Your task to perform on an android device: Search for vegetarian restaurants on Maps Image 0: 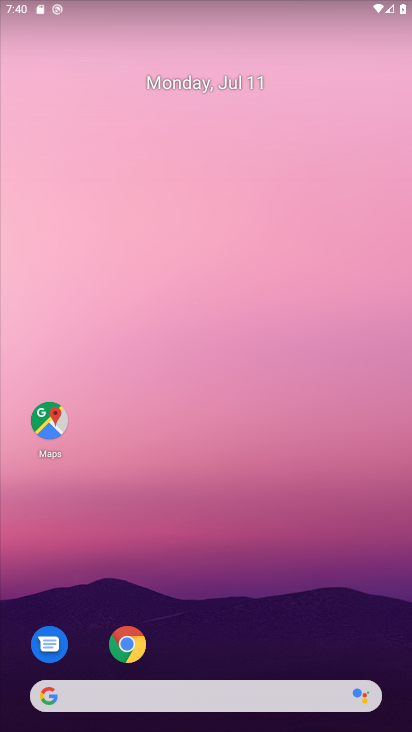
Step 0: drag from (250, 656) to (278, 262)
Your task to perform on an android device: Search for vegetarian restaurants on Maps Image 1: 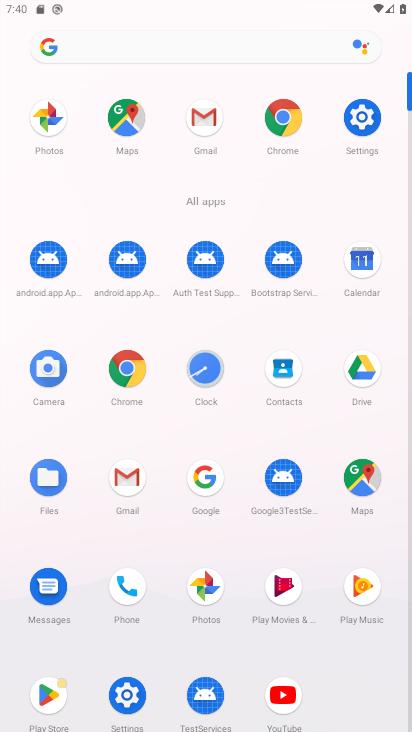
Step 1: click (120, 106)
Your task to perform on an android device: Search for vegetarian restaurants on Maps Image 2: 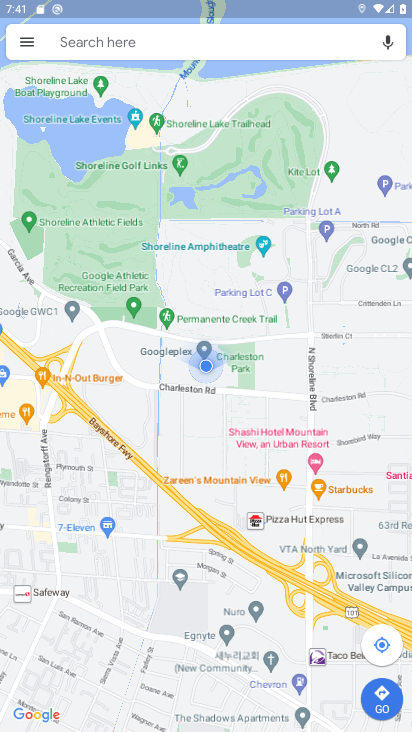
Step 2: click (143, 34)
Your task to perform on an android device: Search for vegetarian restaurants on Maps Image 3: 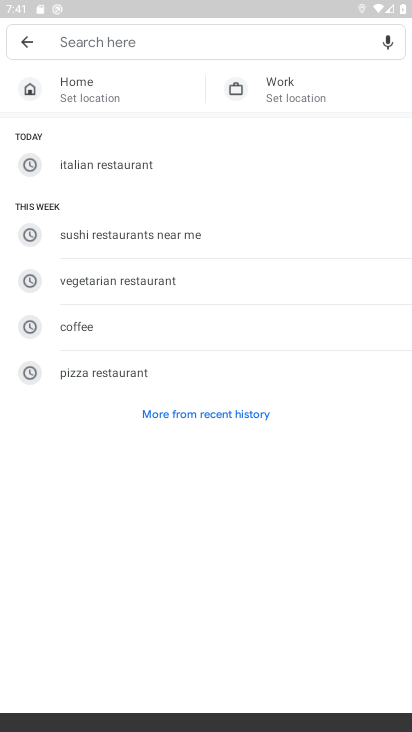
Step 3: type "vegetarian restaurants  "
Your task to perform on an android device: Search for vegetarian restaurants on Maps Image 4: 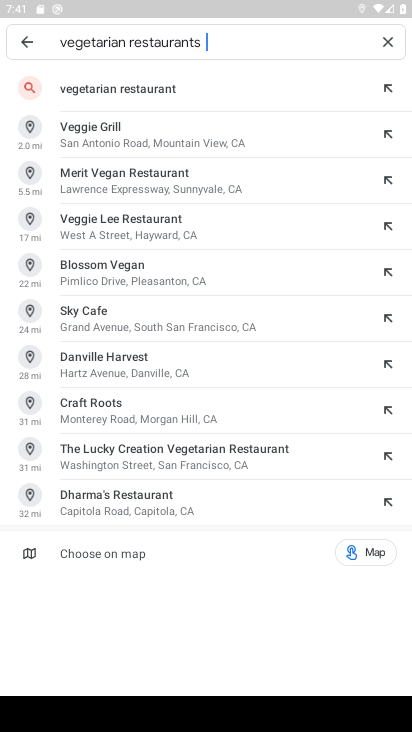
Step 4: click (100, 77)
Your task to perform on an android device: Search for vegetarian restaurants on Maps Image 5: 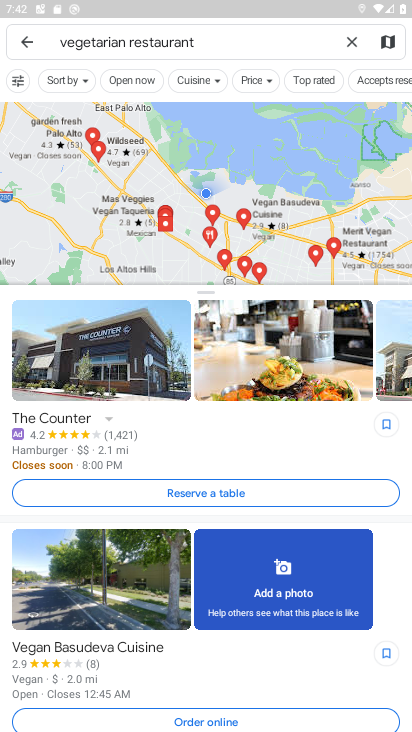
Step 5: task complete